Your task to perform on an android device: Search for seafood restaurants on Google Maps Image 0: 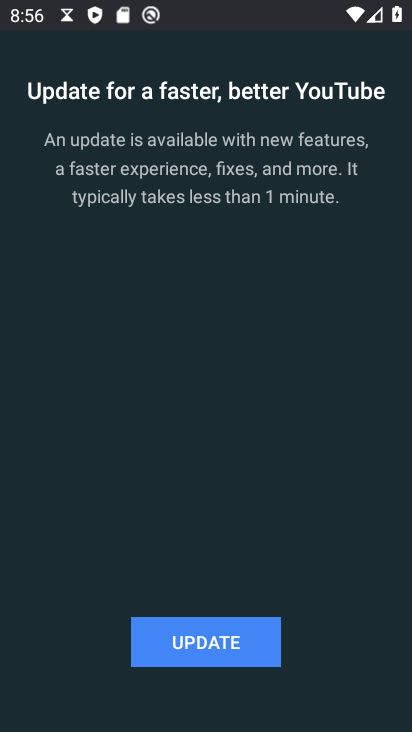
Step 0: press back button
Your task to perform on an android device: Search for seafood restaurants on Google Maps Image 1: 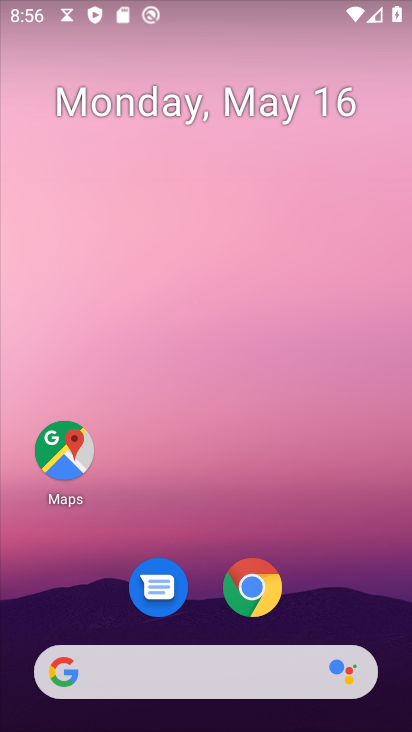
Step 1: click (79, 450)
Your task to perform on an android device: Search for seafood restaurants on Google Maps Image 2: 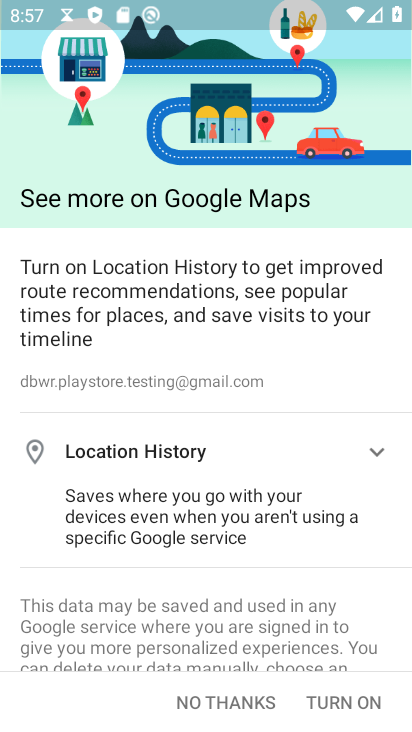
Step 2: click (204, 697)
Your task to perform on an android device: Search for seafood restaurants on Google Maps Image 3: 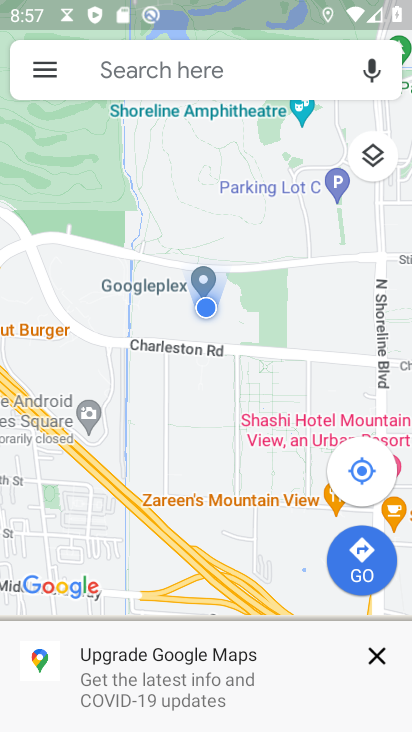
Step 3: click (249, 56)
Your task to perform on an android device: Search for seafood restaurants on Google Maps Image 4: 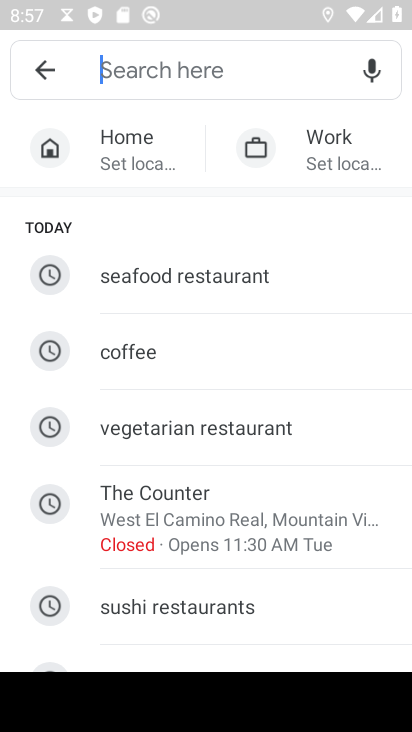
Step 4: click (242, 274)
Your task to perform on an android device: Search for seafood restaurants on Google Maps Image 5: 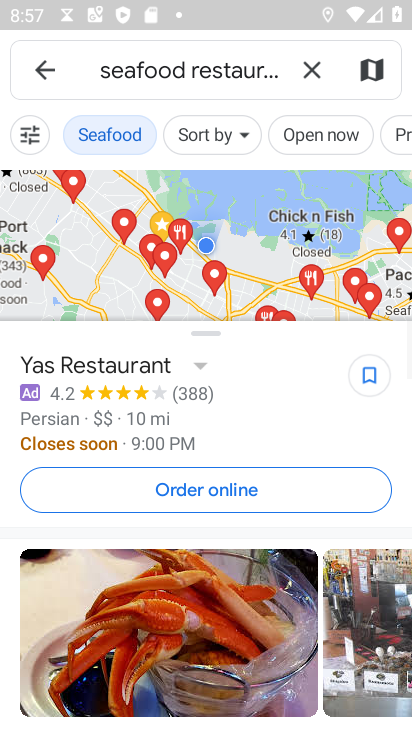
Step 5: task complete